Your task to perform on an android device: change the clock display to show seconds Image 0: 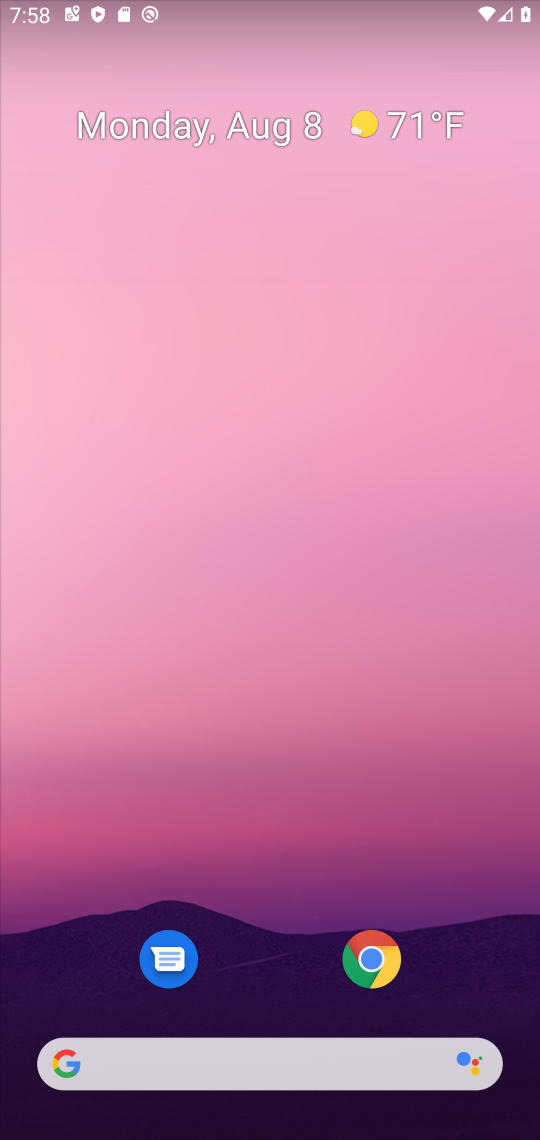
Step 0: drag from (462, 992) to (308, 120)
Your task to perform on an android device: change the clock display to show seconds Image 1: 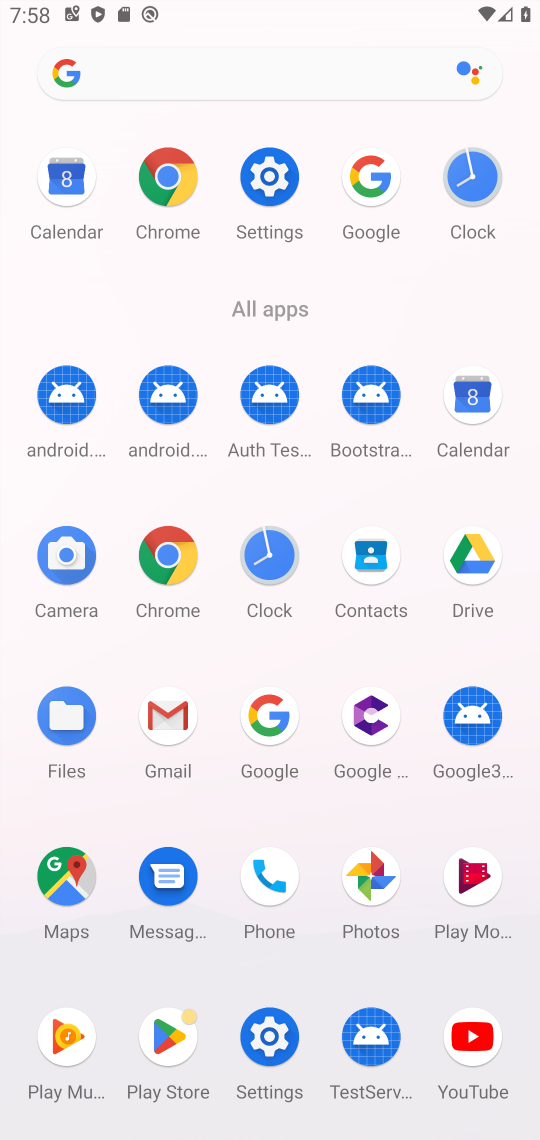
Step 1: click (257, 548)
Your task to perform on an android device: change the clock display to show seconds Image 2: 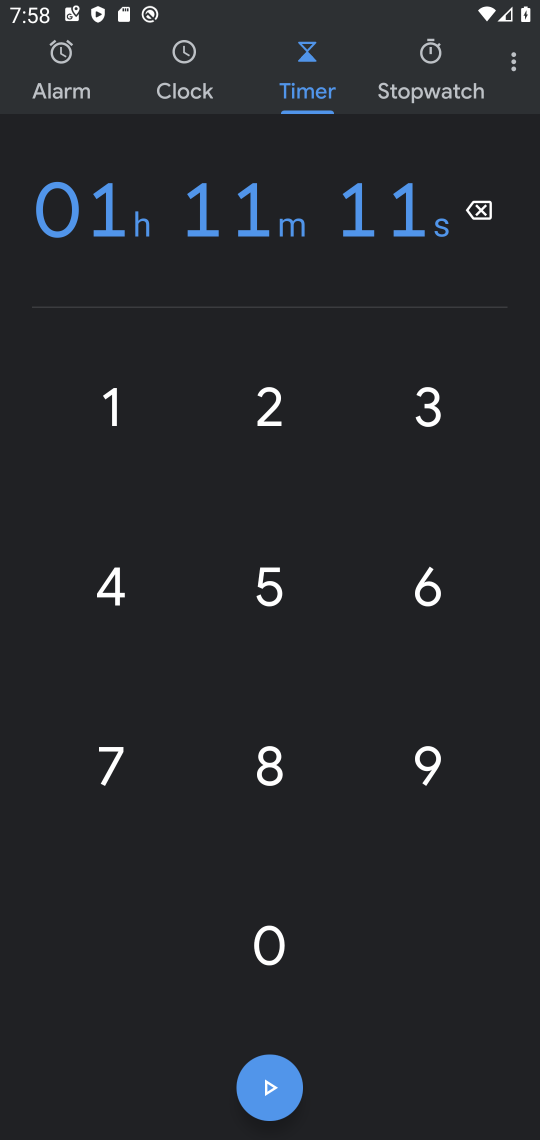
Step 2: click (510, 66)
Your task to perform on an android device: change the clock display to show seconds Image 3: 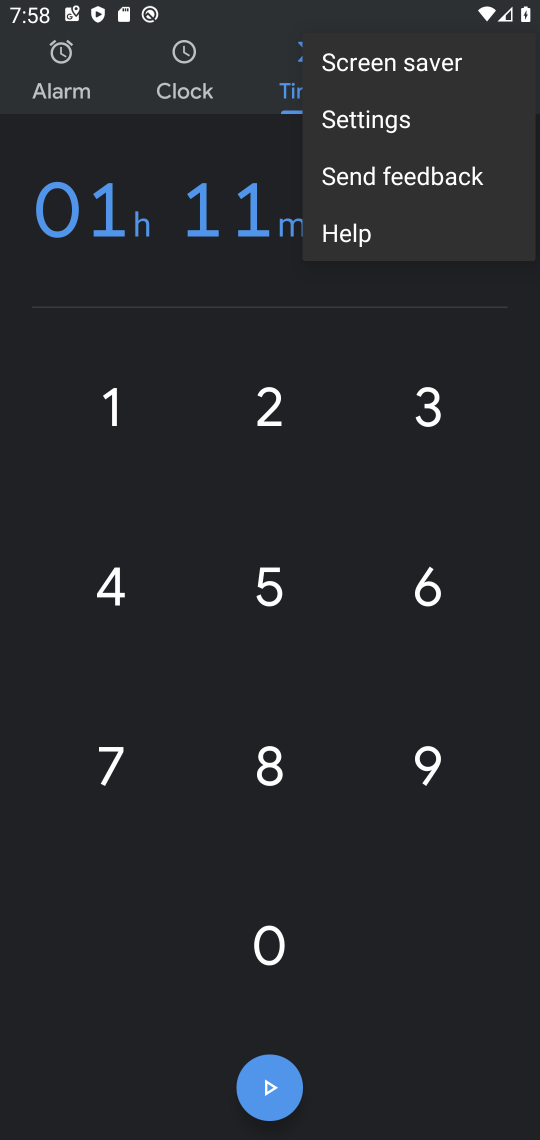
Step 3: click (381, 111)
Your task to perform on an android device: change the clock display to show seconds Image 4: 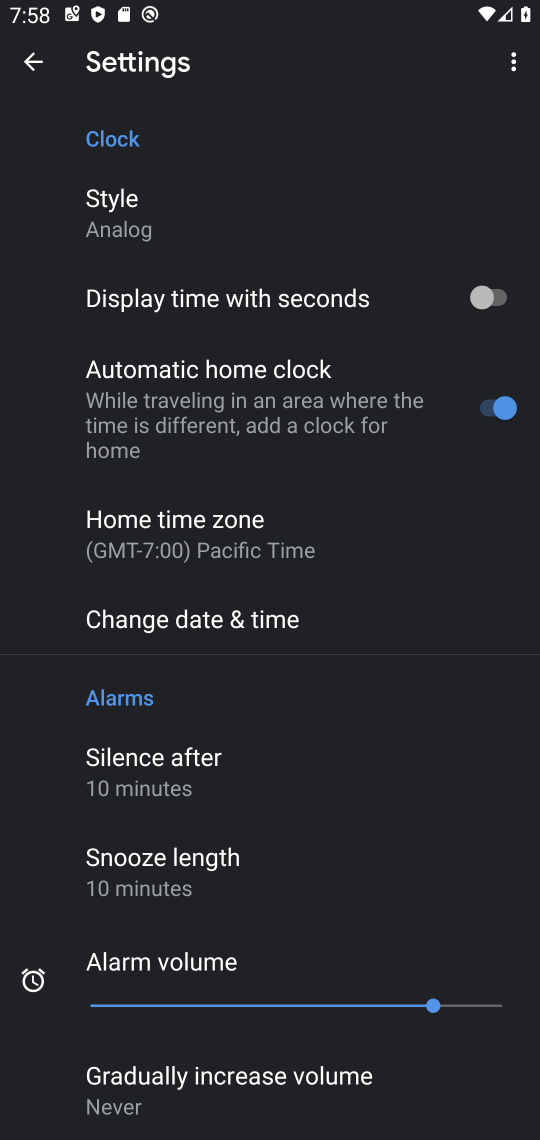
Step 4: click (462, 304)
Your task to perform on an android device: change the clock display to show seconds Image 5: 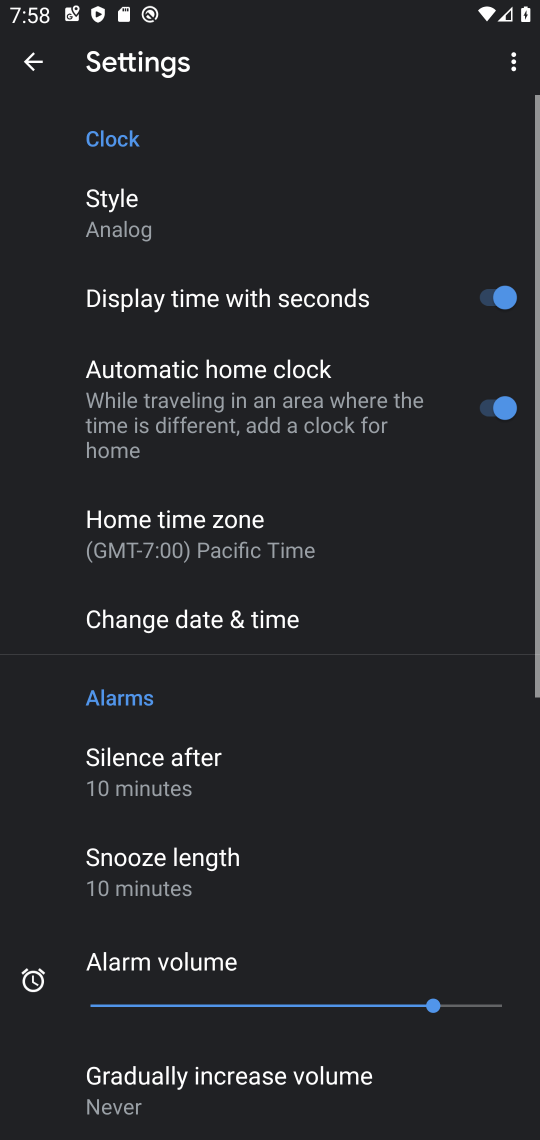
Step 5: task complete